Your task to perform on an android device: Go to Amazon Image 0: 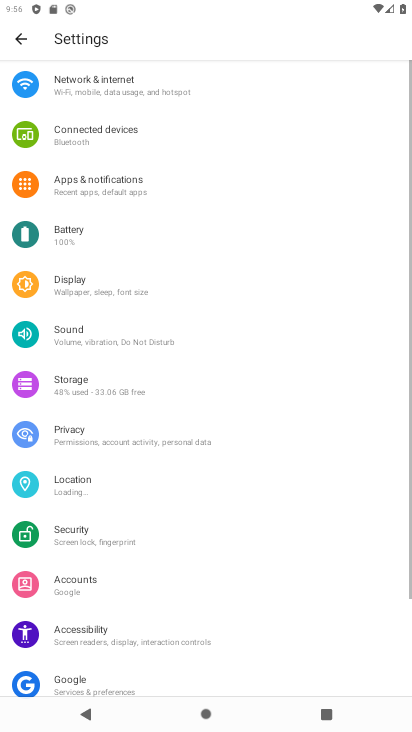
Step 0: press back button
Your task to perform on an android device: Go to Amazon Image 1: 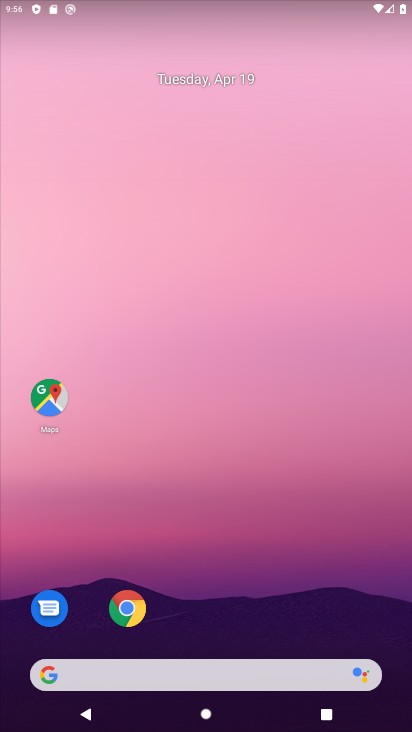
Step 1: click (131, 598)
Your task to perform on an android device: Go to Amazon Image 2: 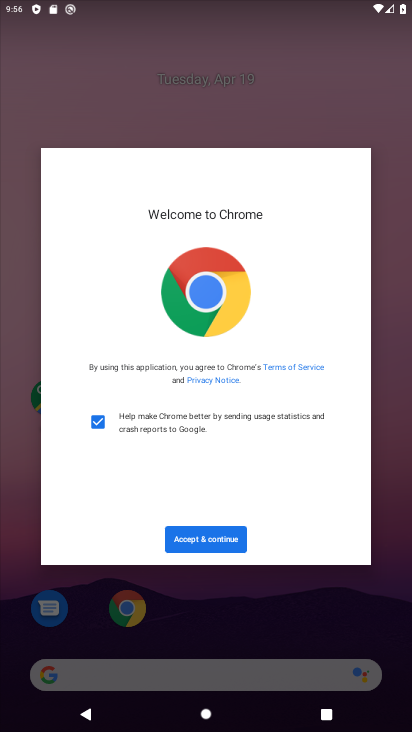
Step 2: click (216, 538)
Your task to perform on an android device: Go to Amazon Image 3: 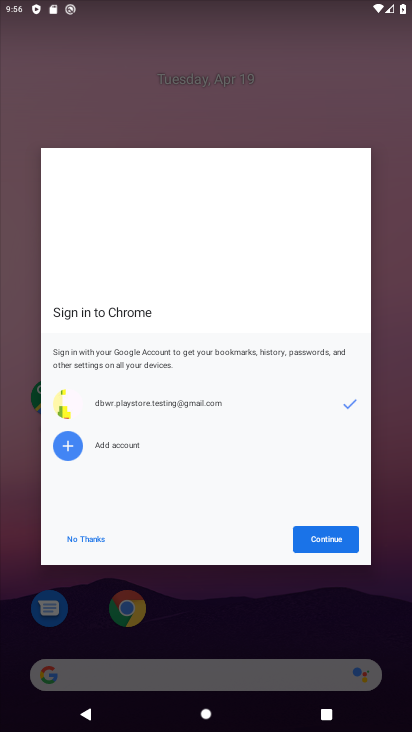
Step 3: click (317, 534)
Your task to perform on an android device: Go to Amazon Image 4: 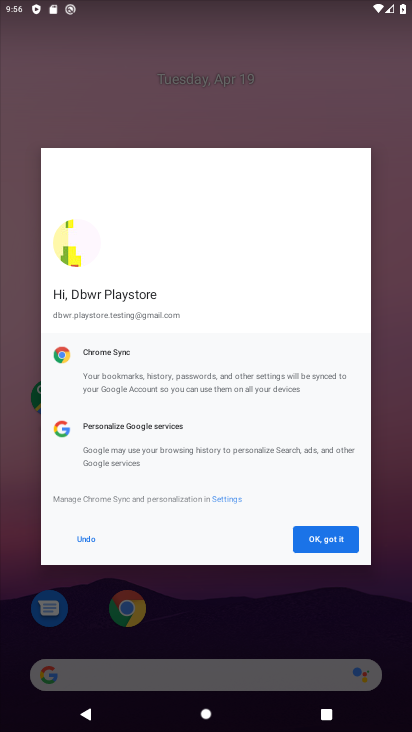
Step 4: click (320, 539)
Your task to perform on an android device: Go to Amazon Image 5: 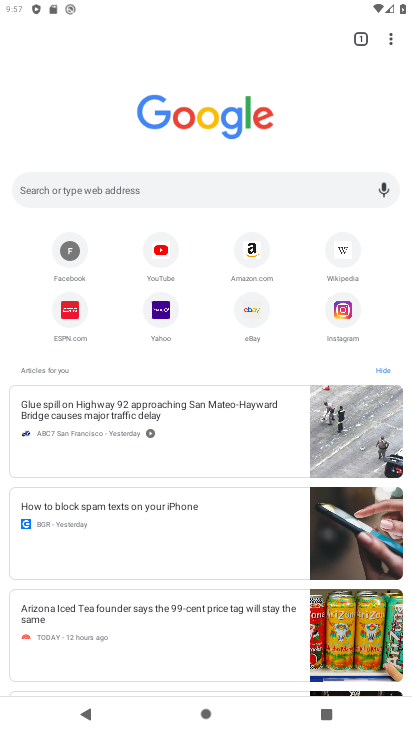
Step 5: click (238, 242)
Your task to perform on an android device: Go to Amazon Image 6: 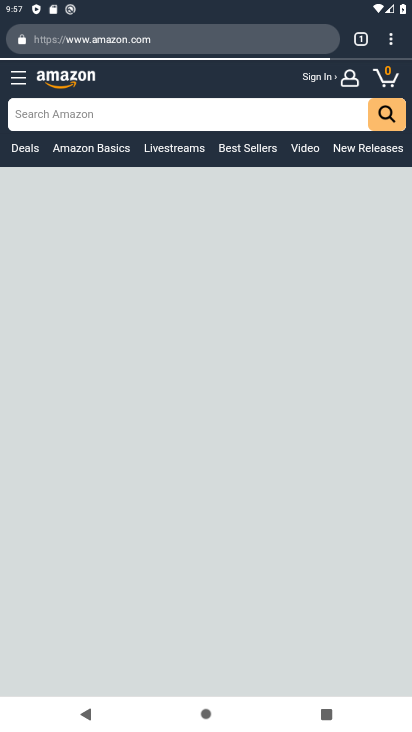
Step 6: task complete